Your task to perform on an android device: Open Google Chrome and open the bookmarks view Image 0: 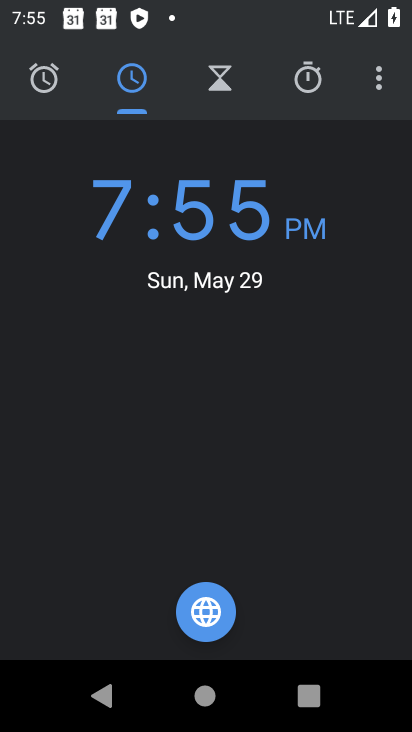
Step 0: press home button
Your task to perform on an android device: Open Google Chrome and open the bookmarks view Image 1: 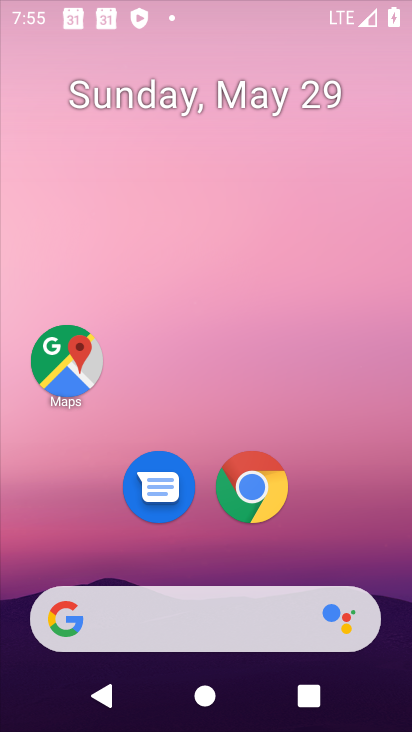
Step 1: click (133, 677)
Your task to perform on an android device: Open Google Chrome and open the bookmarks view Image 2: 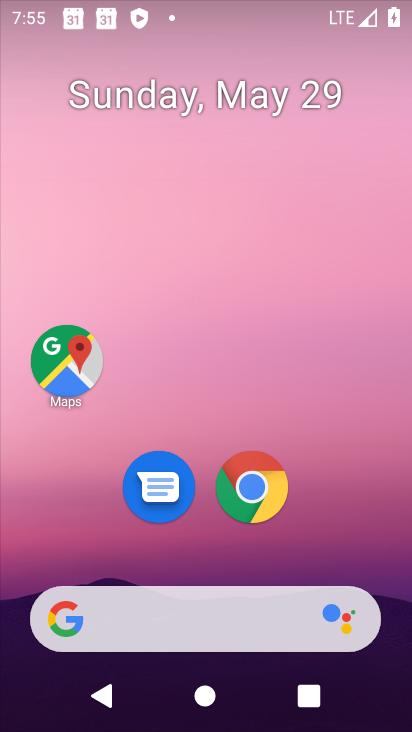
Step 2: drag from (133, 677) to (152, 247)
Your task to perform on an android device: Open Google Chrome and open the bookmarks view Image 3: 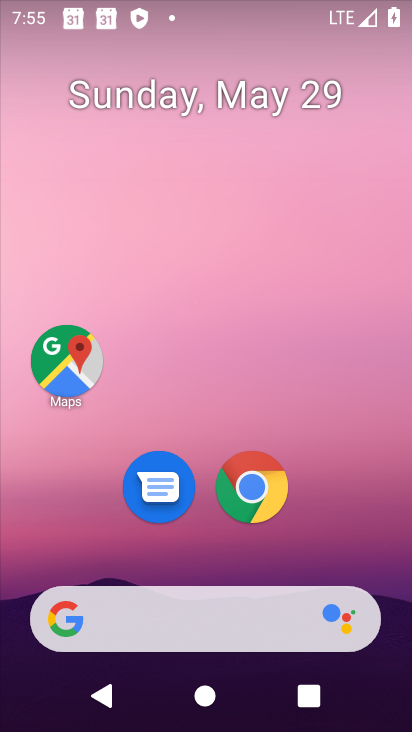
Step 3: click (280, 493)
Your task to perform on an android device: Open Google Chrome and open the bookmarks view Image 4: 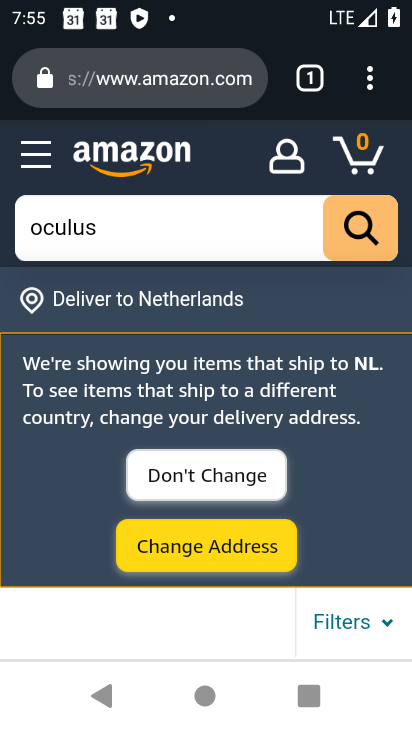
Step 4: click (369, 87)
Your task to perform on an android device: Open Google Chrome and open the bookmarks view Image 5: 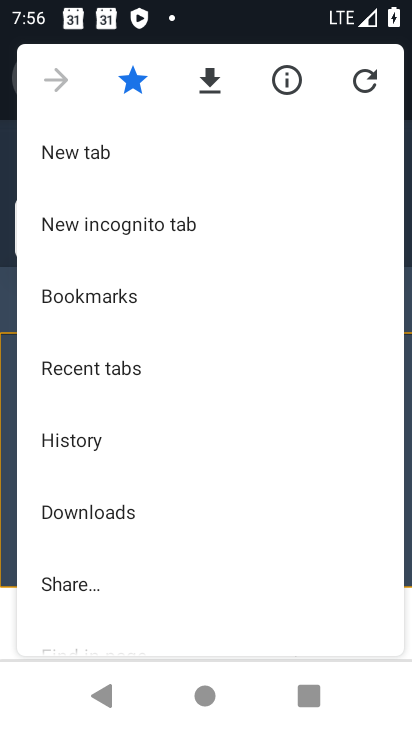
Step 5: click (119, 295)
Your task to perform on an android device: Open Google Chrome and open the bookmarks view Image 6: 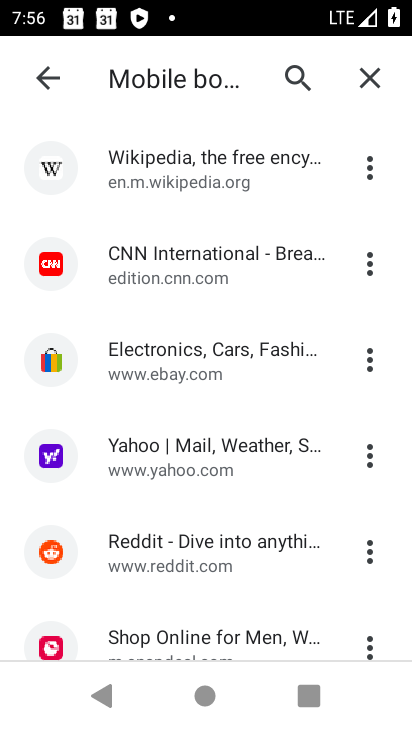
Step 6: task complete